Your task to perform on an android device: Clear the shopping cart on newegg. Add "jbl charge 4" to the cart on newegg Image 0: 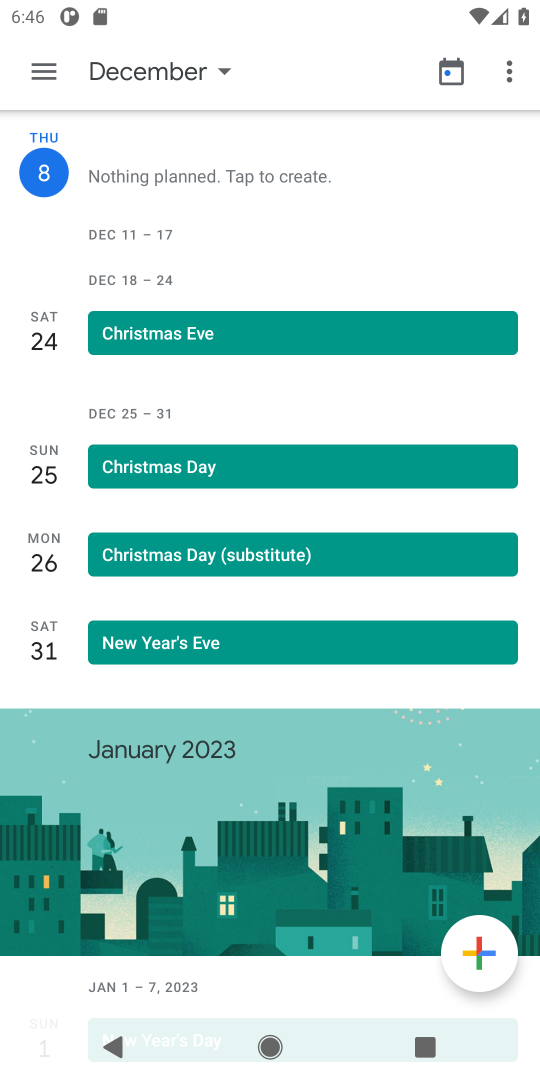
Step 0: press home button
Your task to perform on an android device: Clear the shopping cart on newegg. Add "jbl charge 4" to the cart on newegg Image 1: 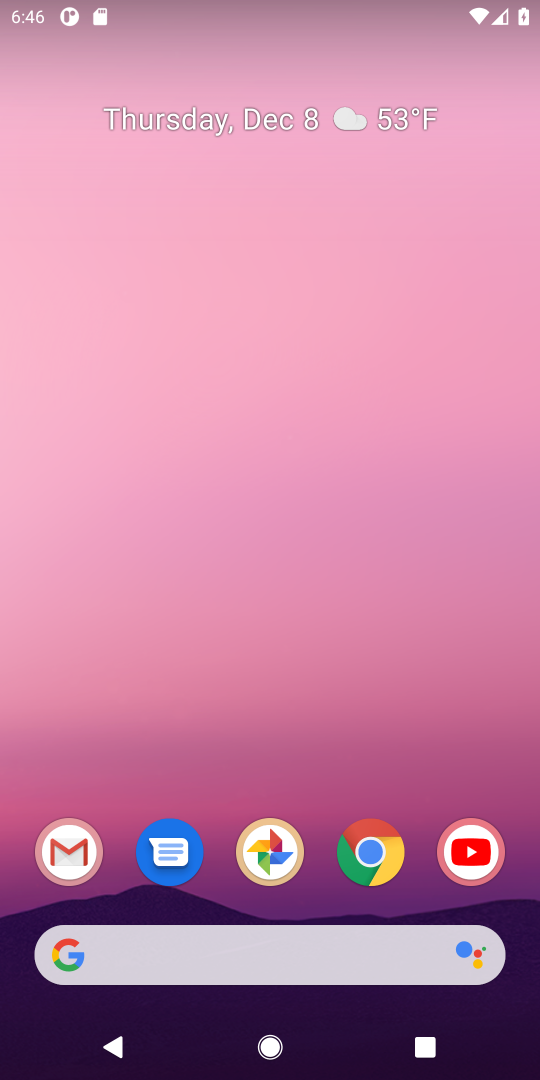
Step 1: click (357, 938)
Your task to perform on an android device: Clear the shopping cart on newegg. Add "jbl charge 4" to the cart on newegg Image 2: 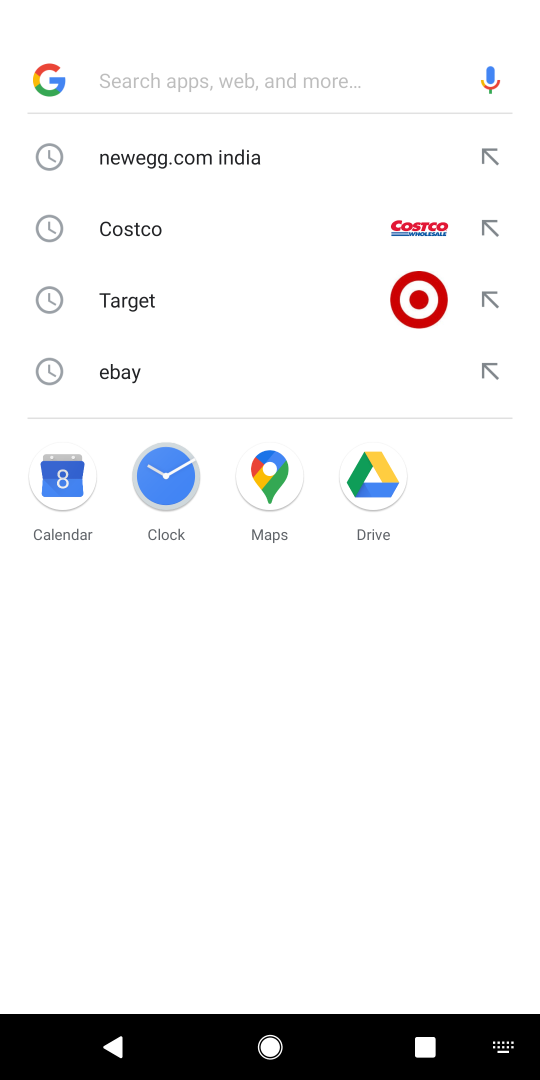
Step 2: click (126, 170)
Your task to perform on an android device: Clear the shopping cart on newegg. Add "jbl charge 4" to the cart on newegg Image 3: 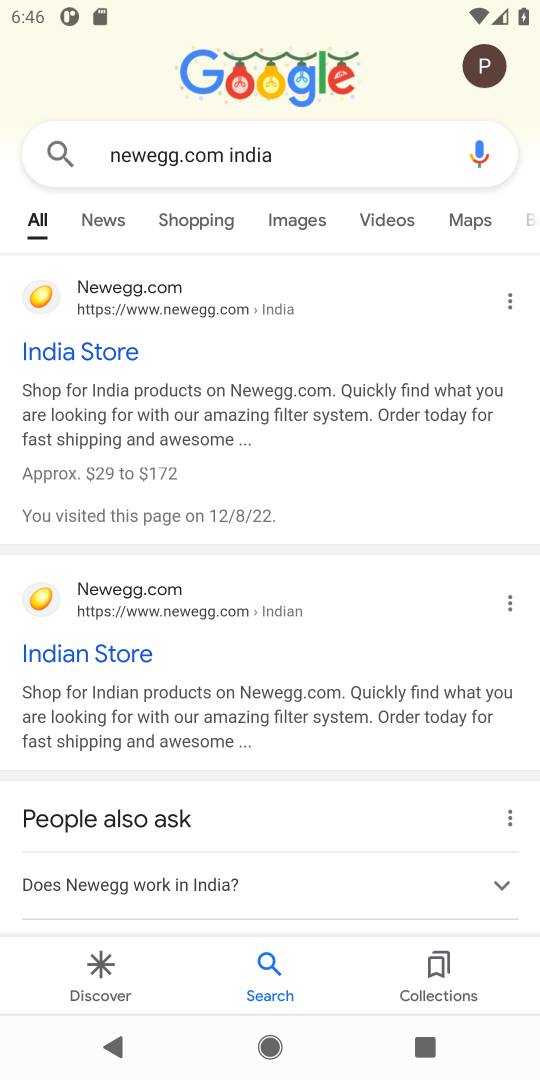
Step 3: click (72, 373)
Your task to perform on an android device: Clear the shopping cart on newegg. Add "jbl charge 4" to the cart on newegg Image 4: 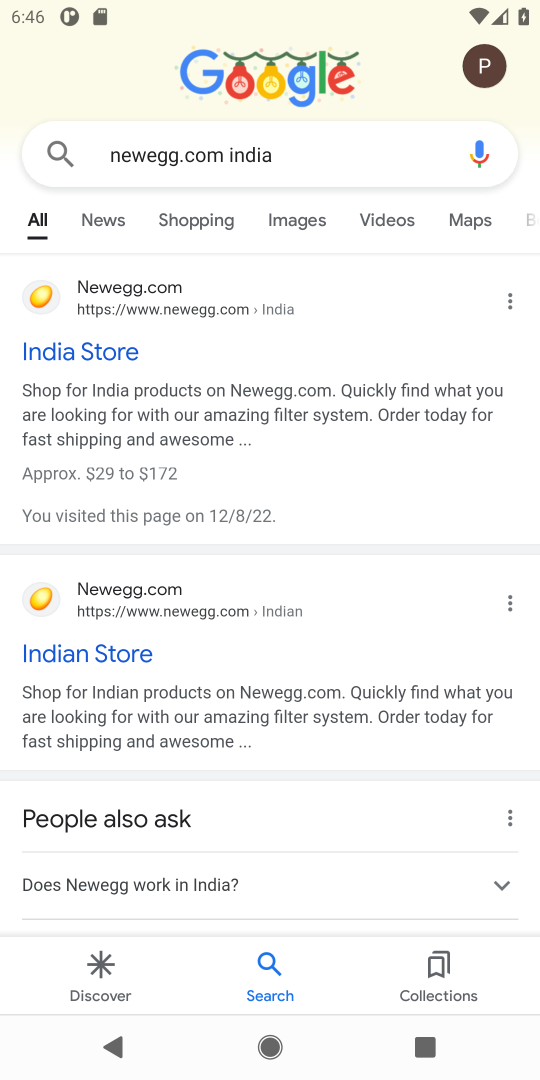
Step 4: click (43, 341)
Your task to perform on an android device: Clear the shopping cart on newegg. Add "jbl charge 4" to the cart on newegg Image 5: 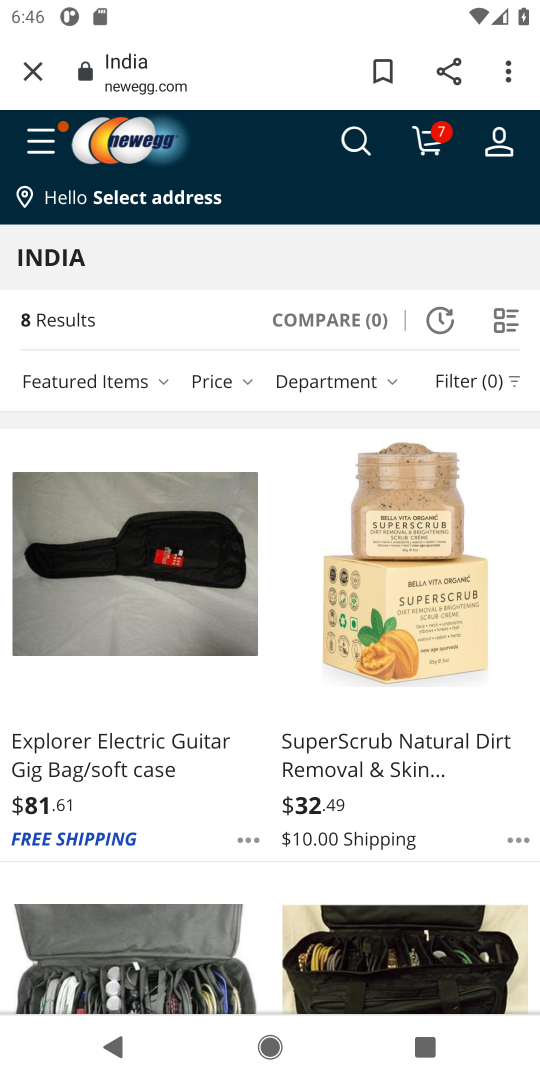
Step 5: click (43, 341)
Your task to perform on an android device: Clear the shopping cart on newegg. Add "jbl charge 4" to the cart on newegg Image 6: 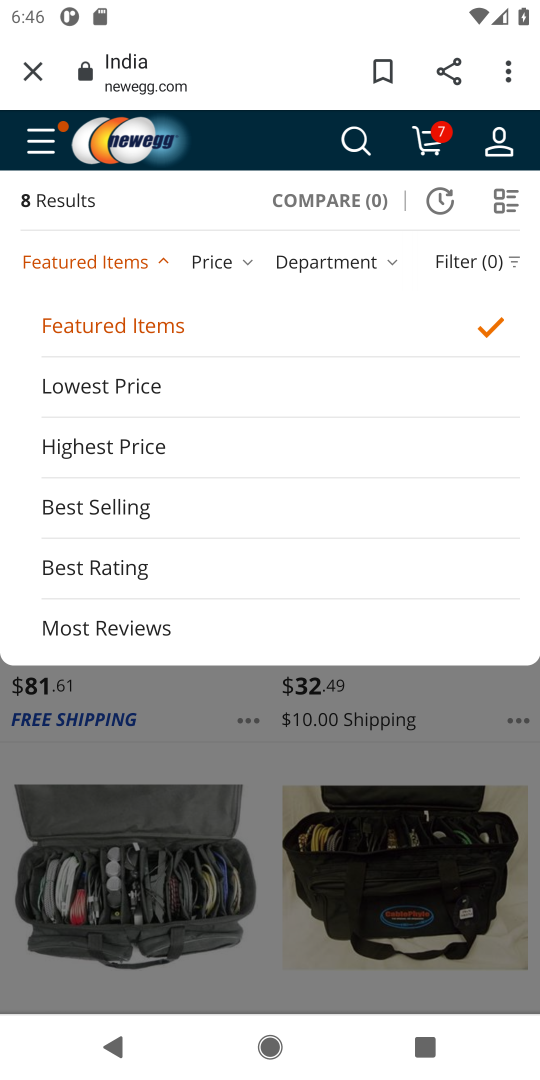
Step 6: click (357, 153)
Your task to perform on an android device: Clear the shopping cart on newegg. Add "jbl charge 4" to the cart on newegg Image 7: 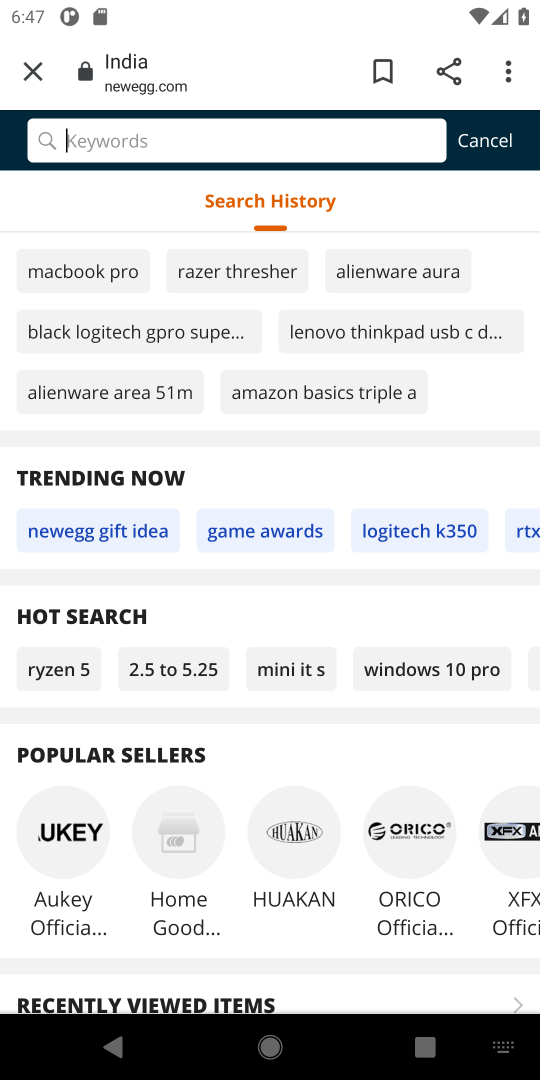
Step 7: click (254, 138)
Your task to perform on an android device: Clear the shopping cart on newegg. Add "jbl charge 4" to the cart on newegg Image 8: 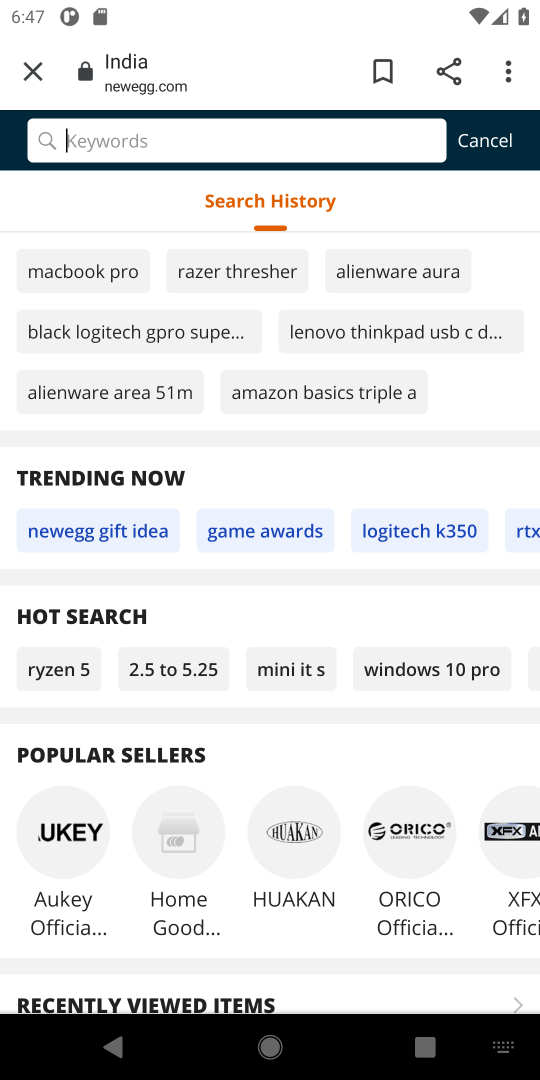
Step 8: type "jbl charge 4"
Your task to perform on an android device: Clear the shopping cart on newegg. Add "jbl charge 4" to the cart on newegg Image 9: 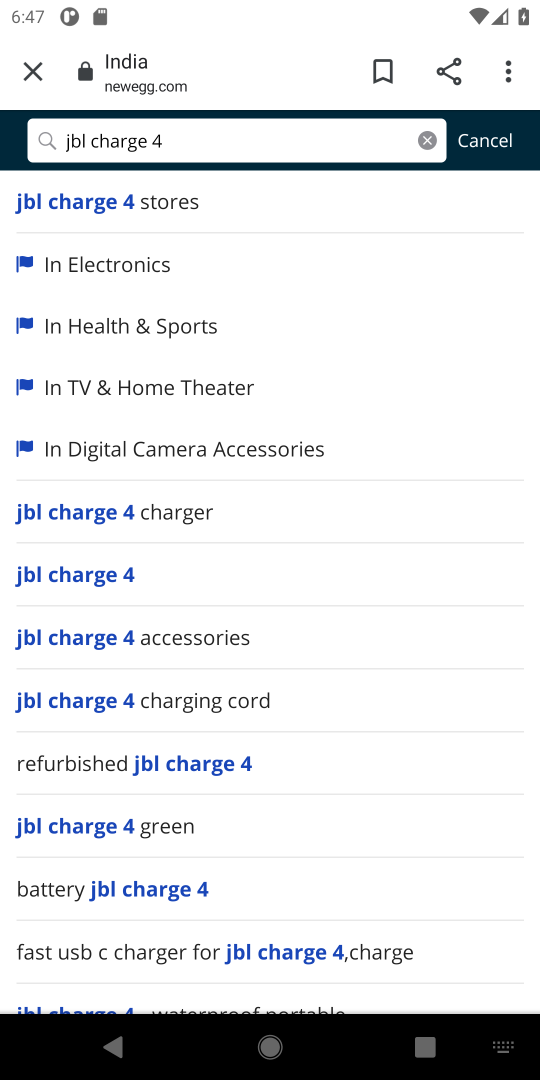
Step 9: click (98, 212)
Your task to perform on an android device: Clear the shopping cart on newegg. Add "jbl charge 4" to the cart on newegg Image 10: 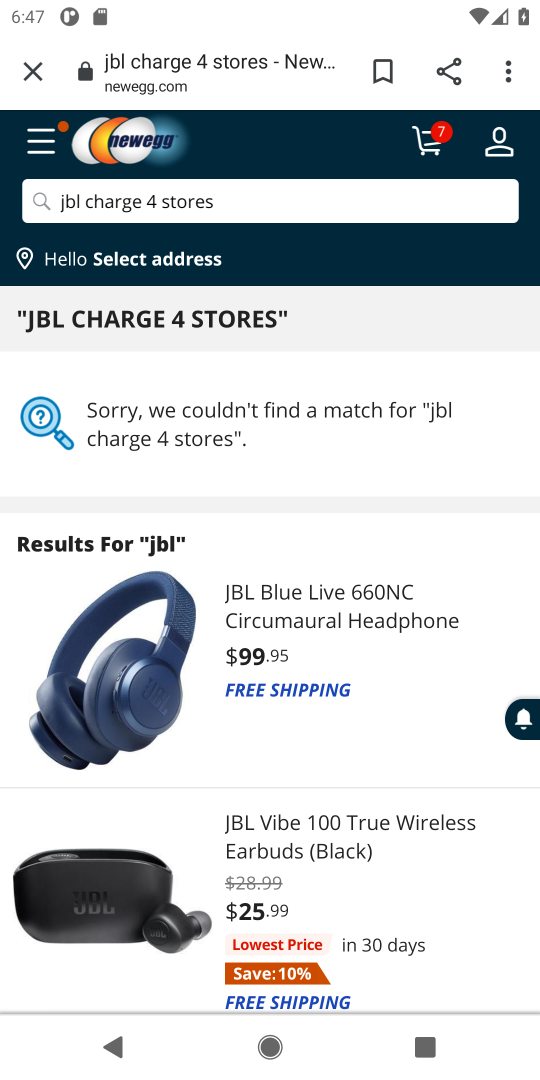
Step 10: click (327, 654)
Your task to perform on an android device: Clear the shopping cart on newegg. Add "jbl charge 4" to the cart on newegg Image 11: 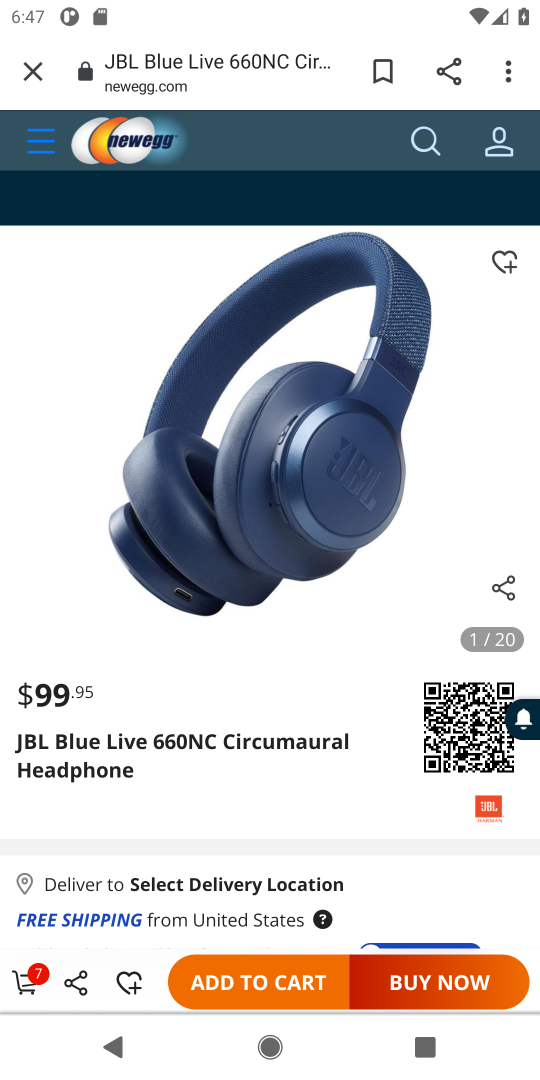
Step 11: click (264, 991)
Your task to perform on an android device: Clear the shopping cart on newegg. Add "jbl charge 4" to the cart on newegg Image 12: 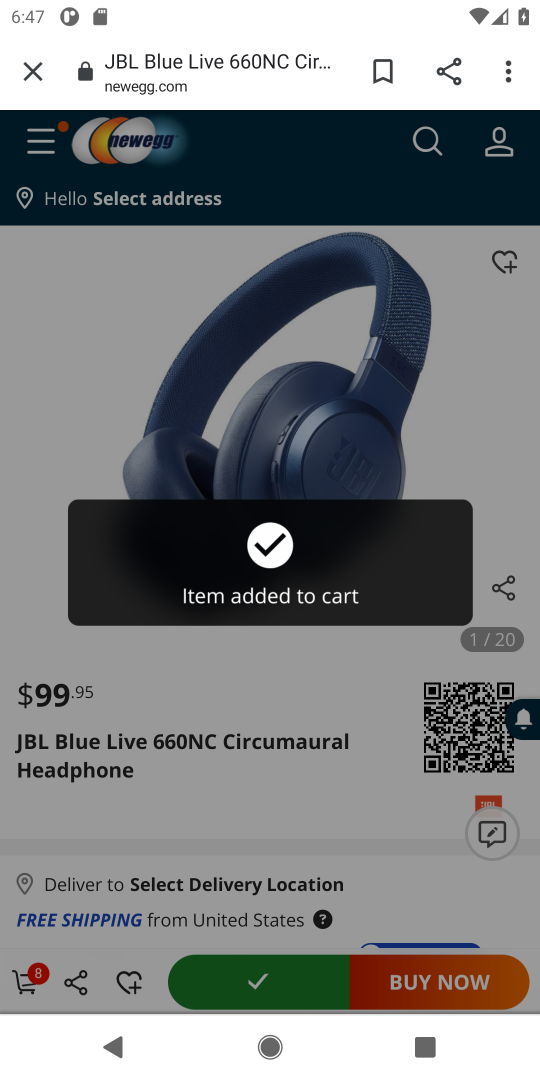
Step 12: task complete